Your task to perform on an android device: Empty the shopping cart on walmart.com. Search for energizer triple a on walmart.com, select the first entry, and add it to the cart. Image 0: 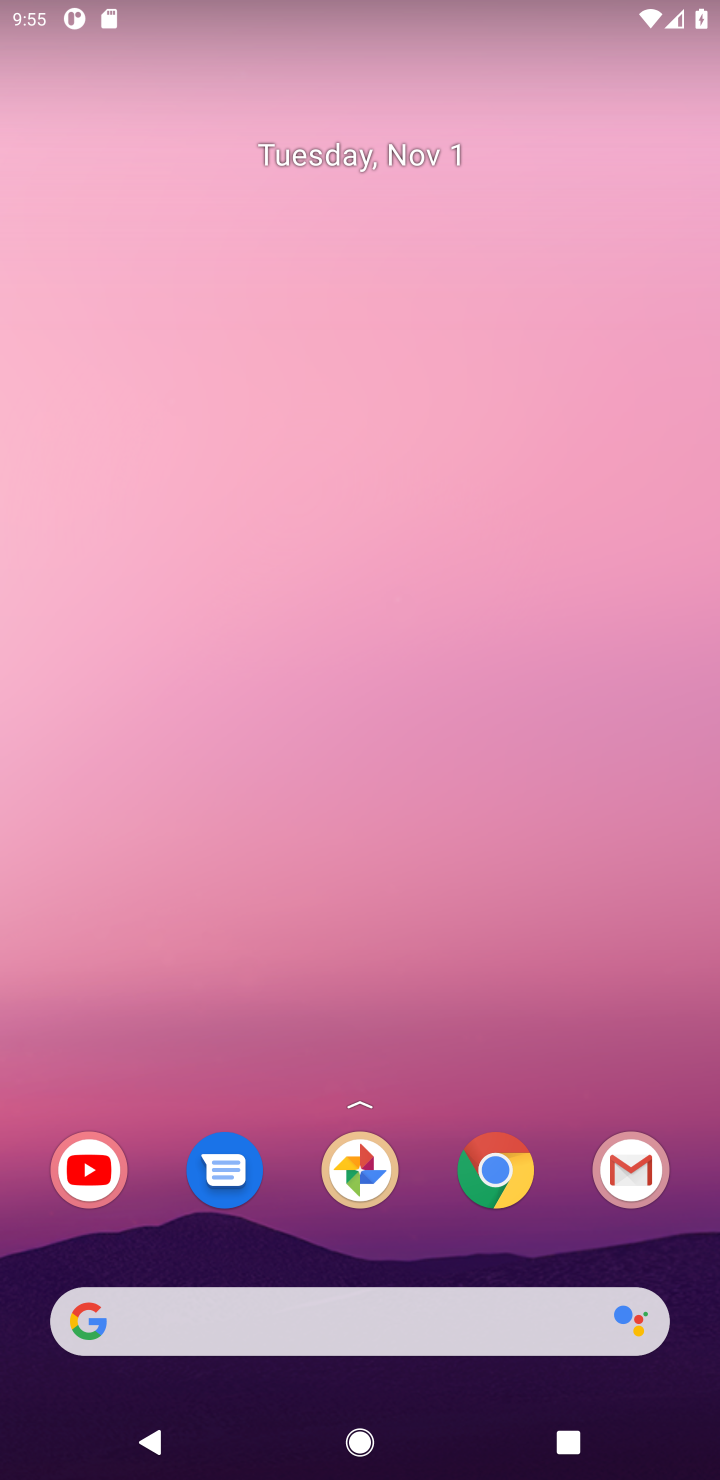
Step 0: click (511, 1193)
Your task to perform on an android device: Empty the shopping cart on walmart.com. Search for energizer triple a on walmart.com, select the first entry, and add it to the cart. Image 1: 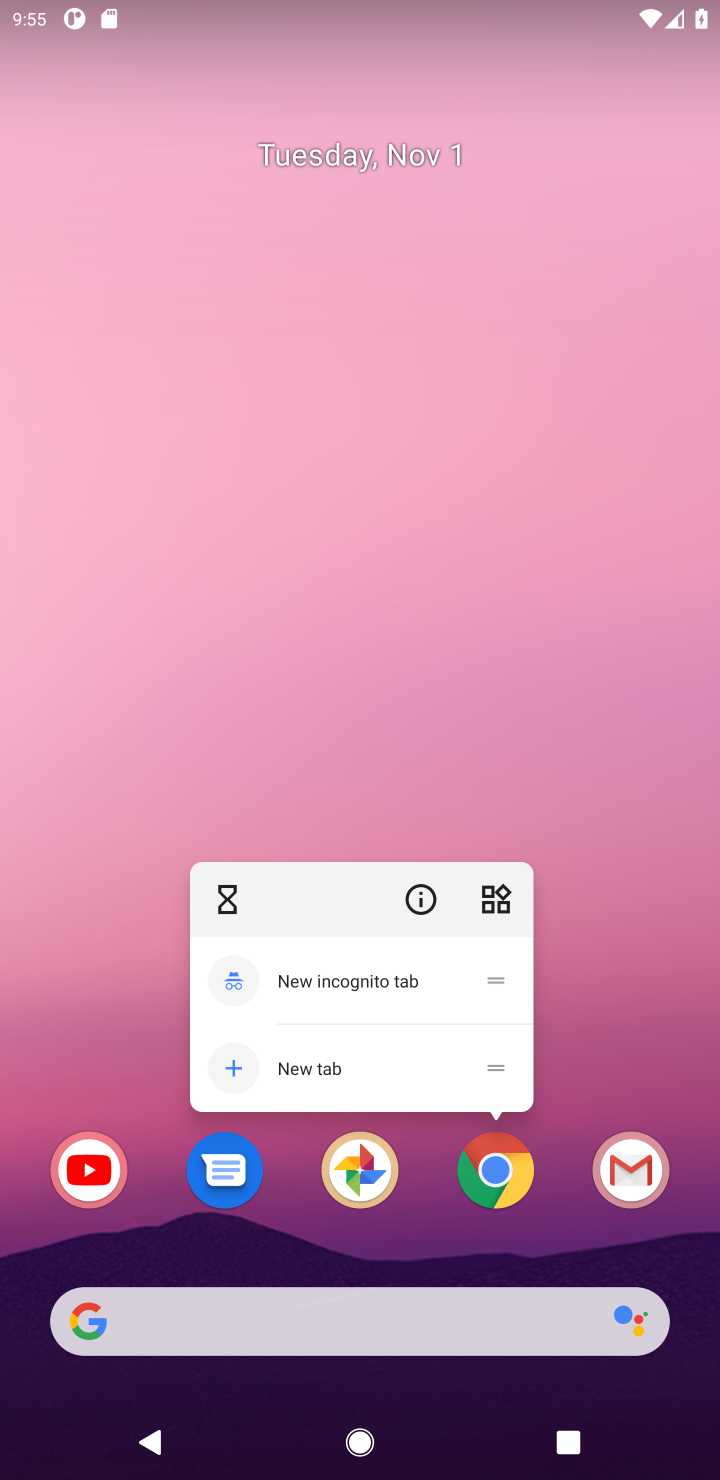
Step 1: click (513, 1187)
Your task to perform on an android device: Empty the shopping cart on walmart.com. Search for energizer triple a on walmart.com, select the first entry, and add it to the cart. Image 2: 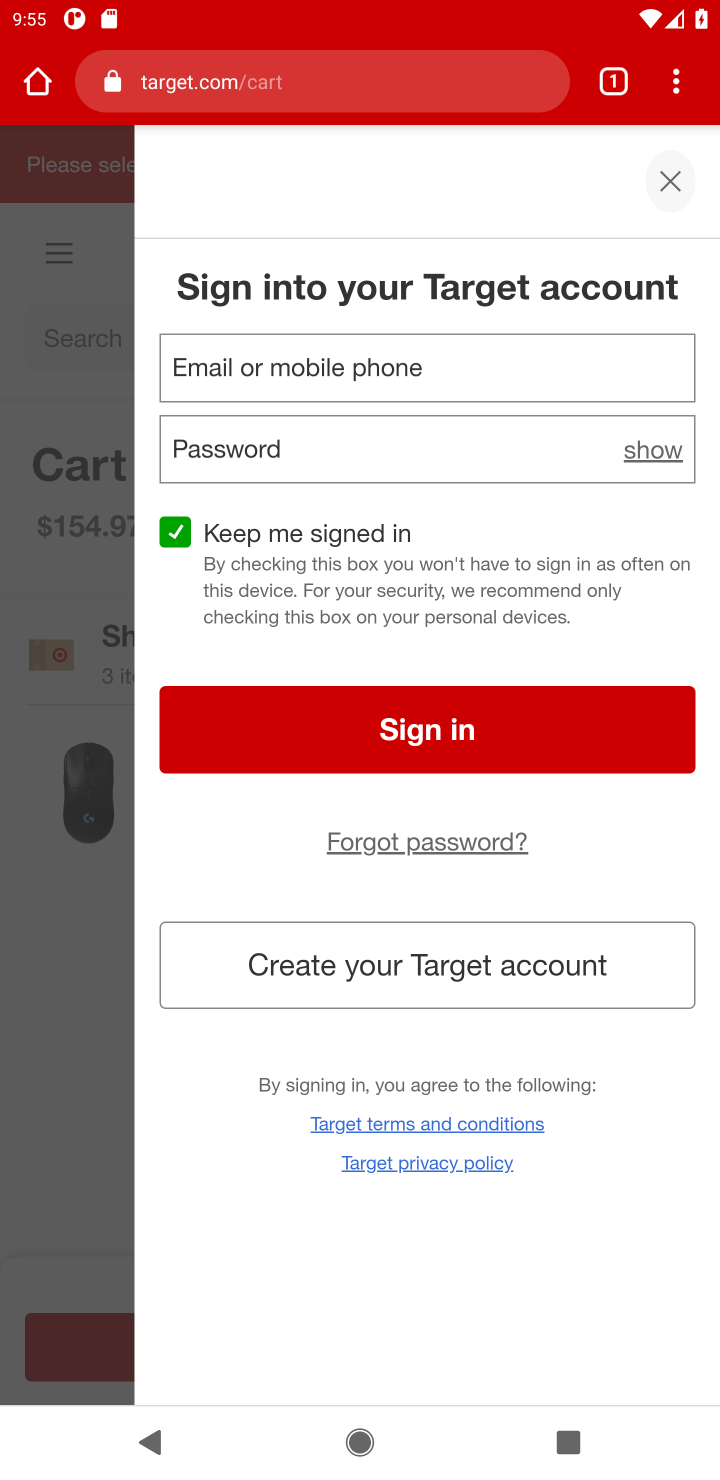
Step 2: click (224, 90)
Your task to perform on an android device: Empty the shopping cart on walmart.com. Search for energizer triple a on walmart.com, select the first entry, and add it to the cart. Image 3: 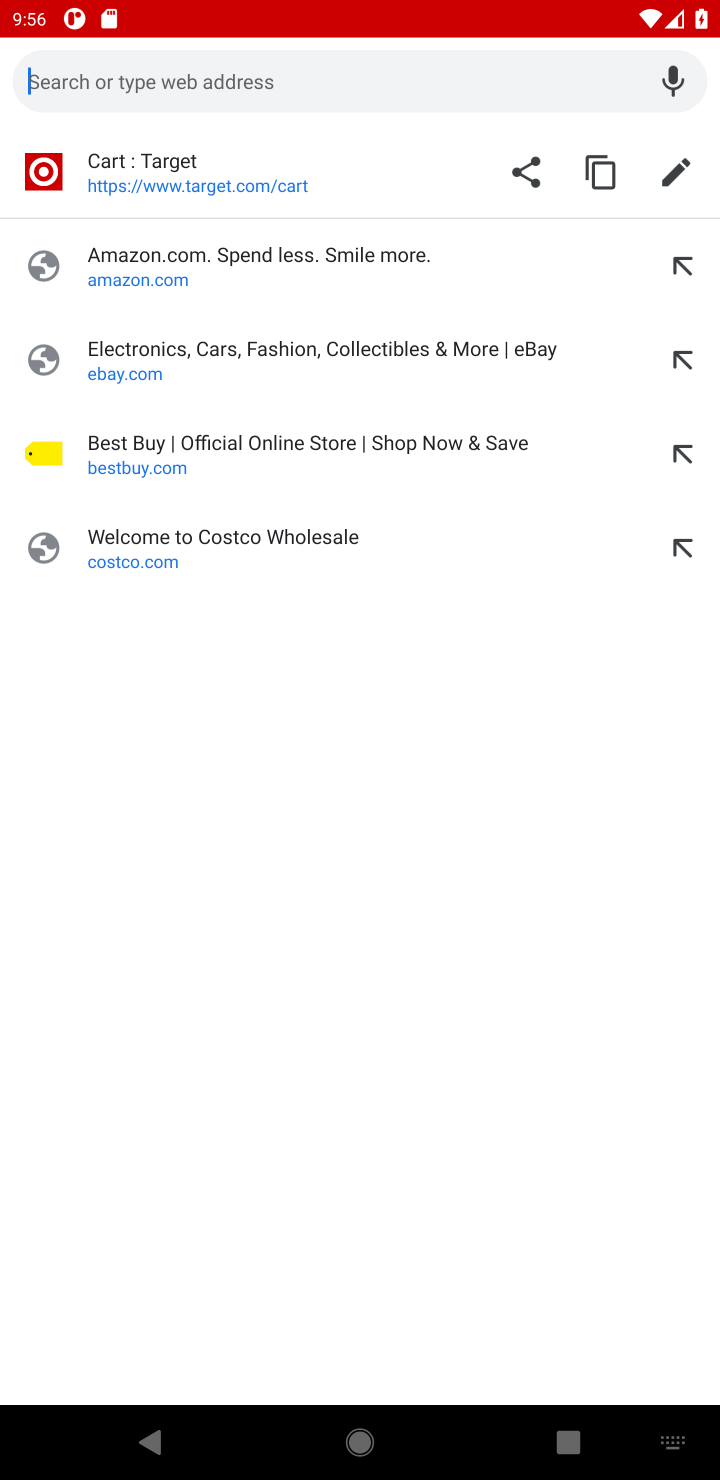
Step 3: type "walmart.com"
Your task to perform on an android device: Empty the shopping cart on walmart.com. Search for energizer triple a on walmart.com, select the first entry, and add it to the cart. Image 4: 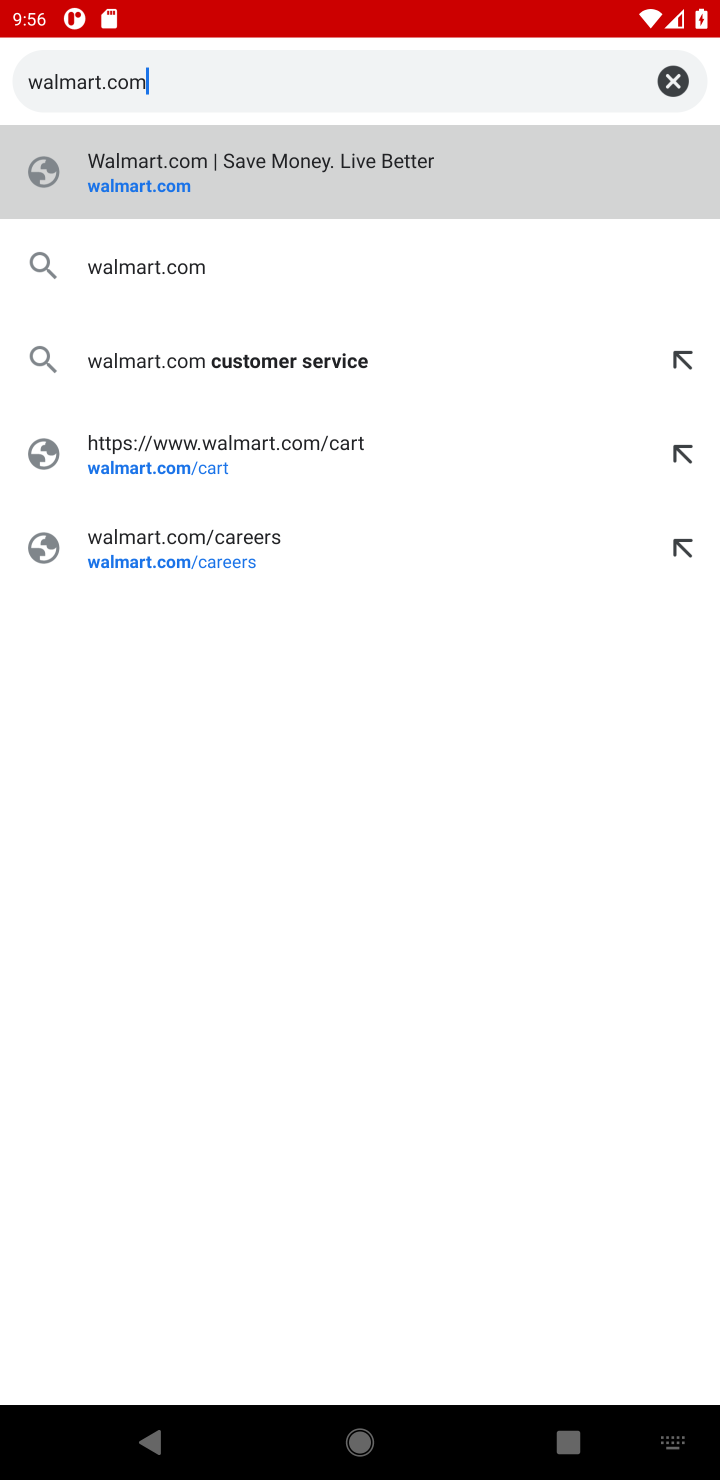
Step 4: press enter
Your task to perform on an android device: Empty the shopping cart on walmart.com. Search for energizer triple a on walmart.com, select the first entry, and add it to the cart. Image 5: 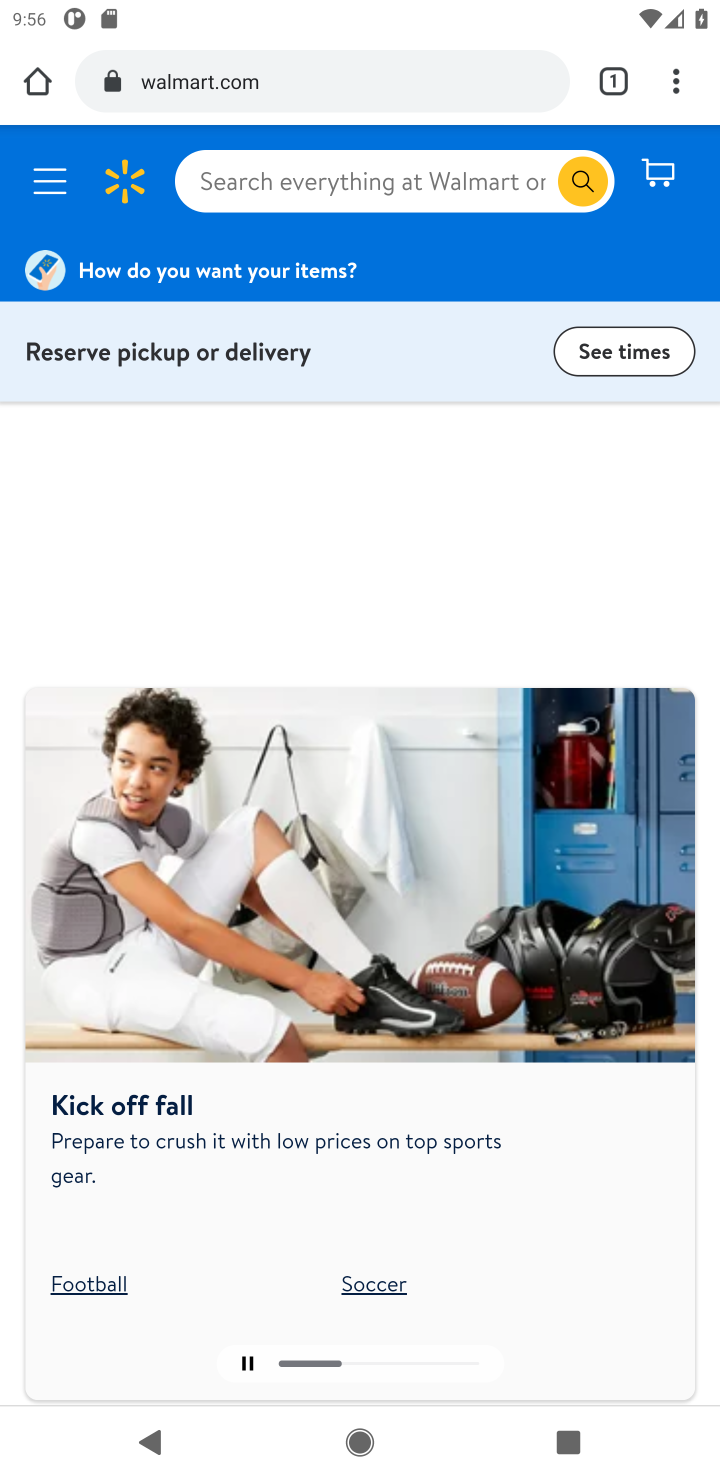
Step 5: click (660, 170)
Your task to perform on an android device: Empty the shopping cart on walmart.com. Search for energizer triple a on walmart.com, select the first entry, and add it to the cart. Image 6: 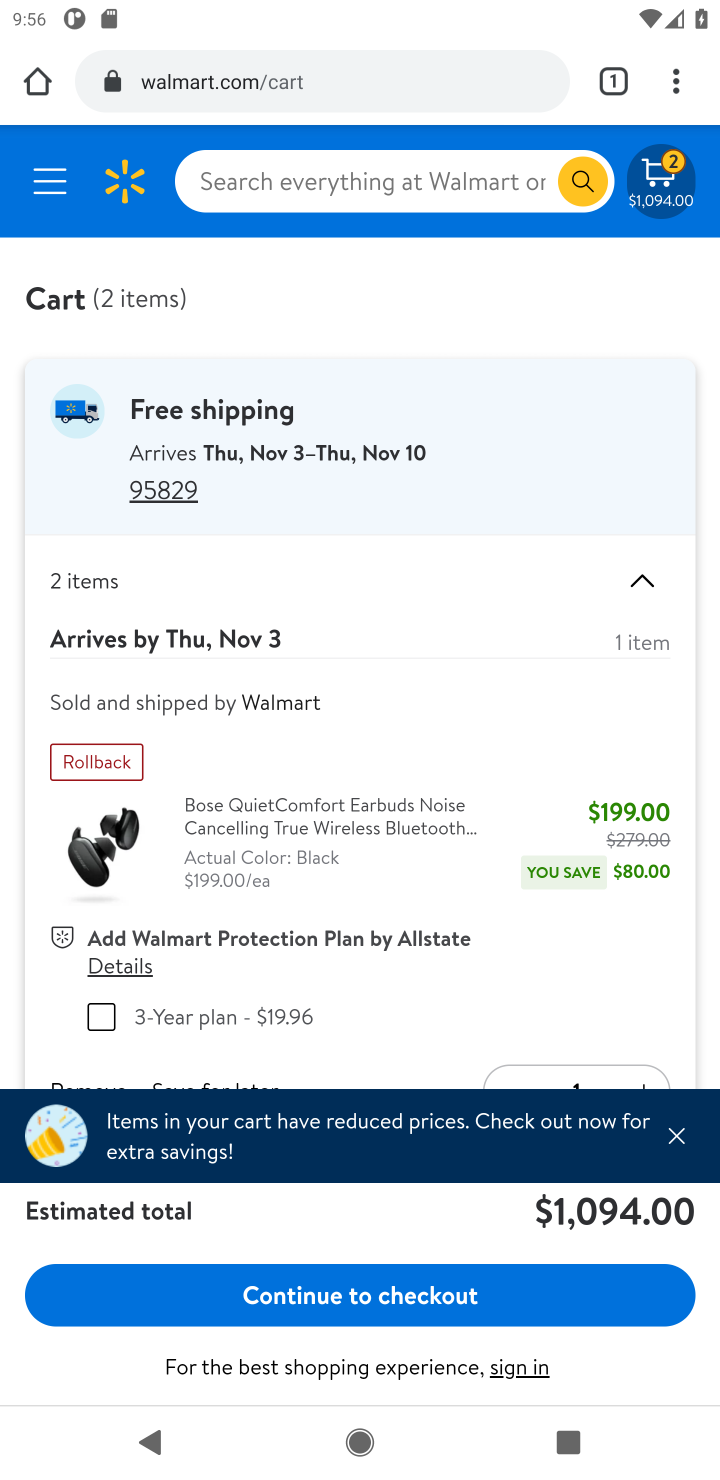
Step 6: drag from (499, 949) to (469, 600)
Your task to perform on an android device: Empty the shopping cart on walmart.com. Search for energizer triple a on walmart.com, select the first entry, and add it to the cart. Image 7: 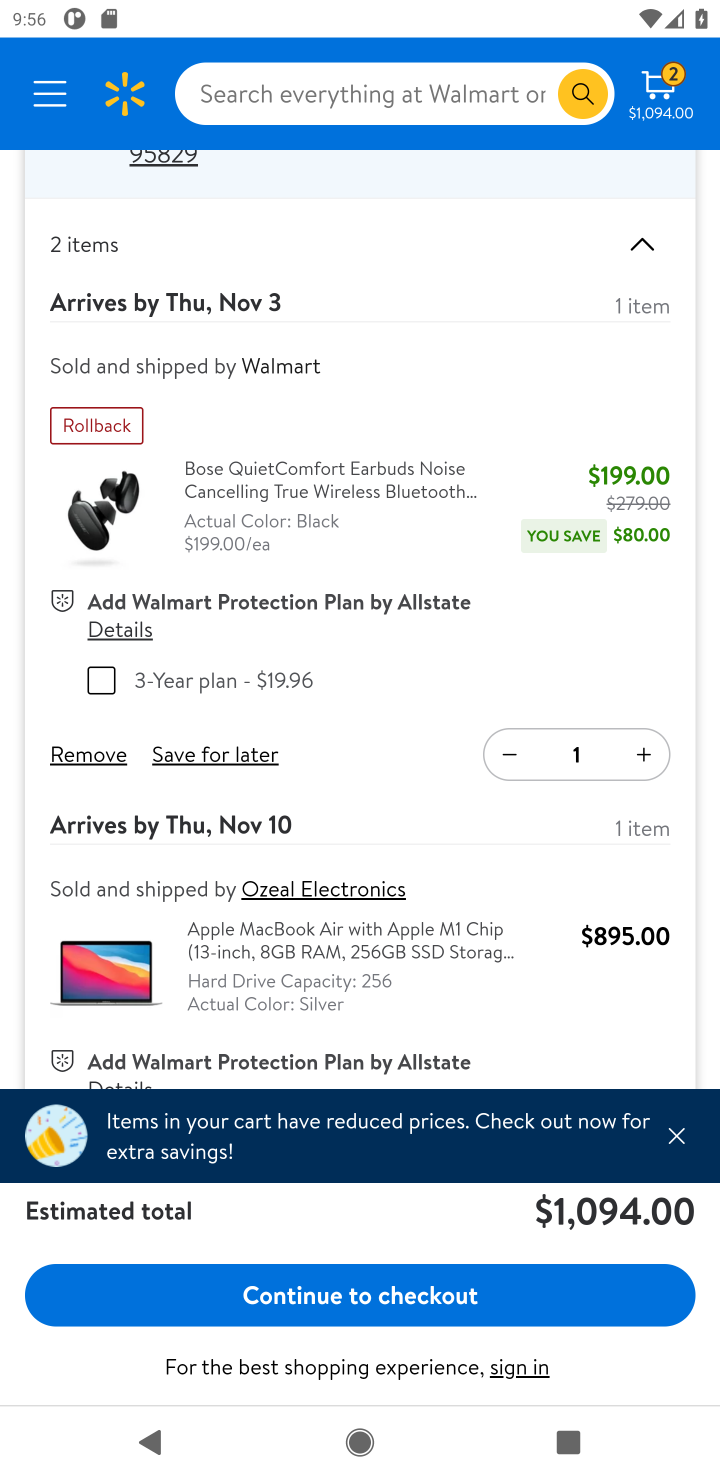
Step 7: click (100, 754)
Your task to perform on an android device: Empty the shopping cart on walmart.com. Search for energizer triple a on walmart.com, select the first entry, and add it to the cart. Image 8: 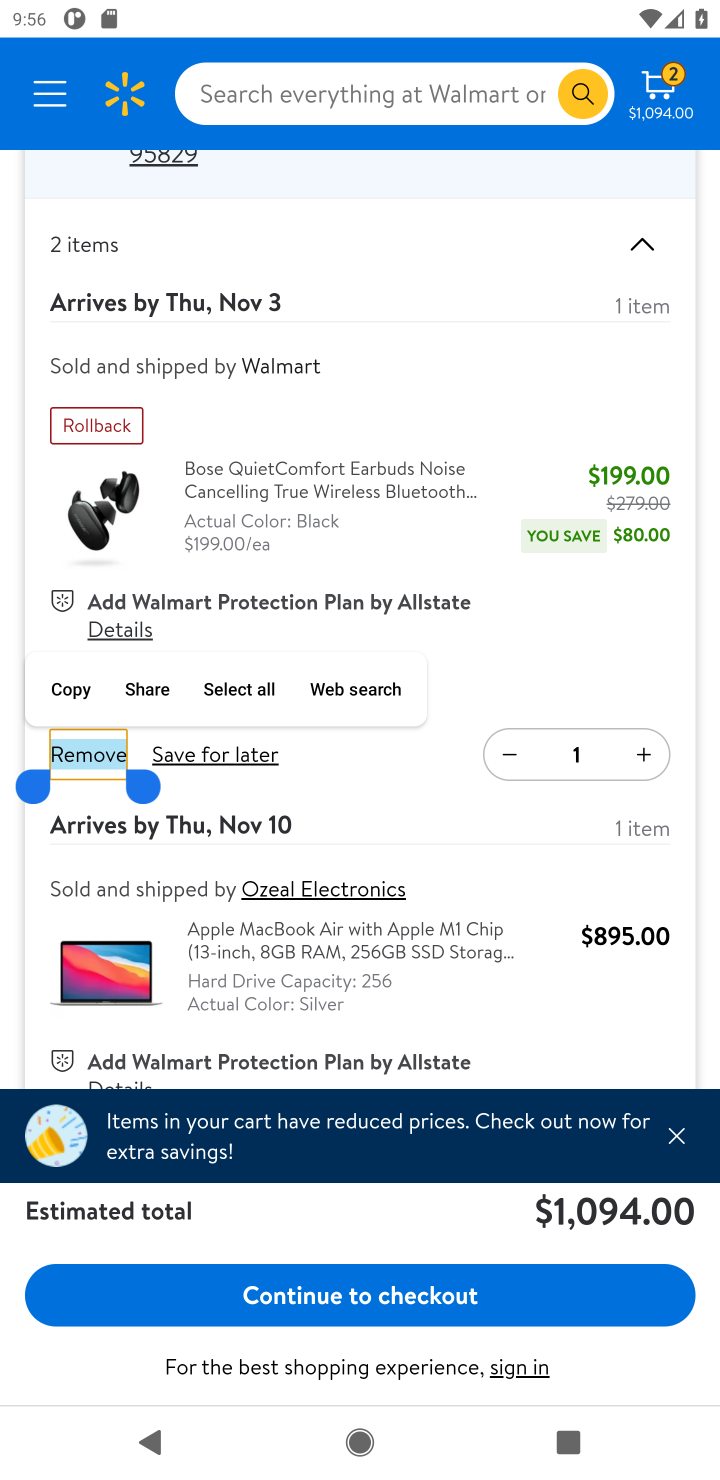
Step 8: click (94, 767)
Your task to perform on an android device: Empty the shopping cart on walmart.com. Search for energizer triple a on walmart.com, select the first entry, and add it to the cart. Image 9: 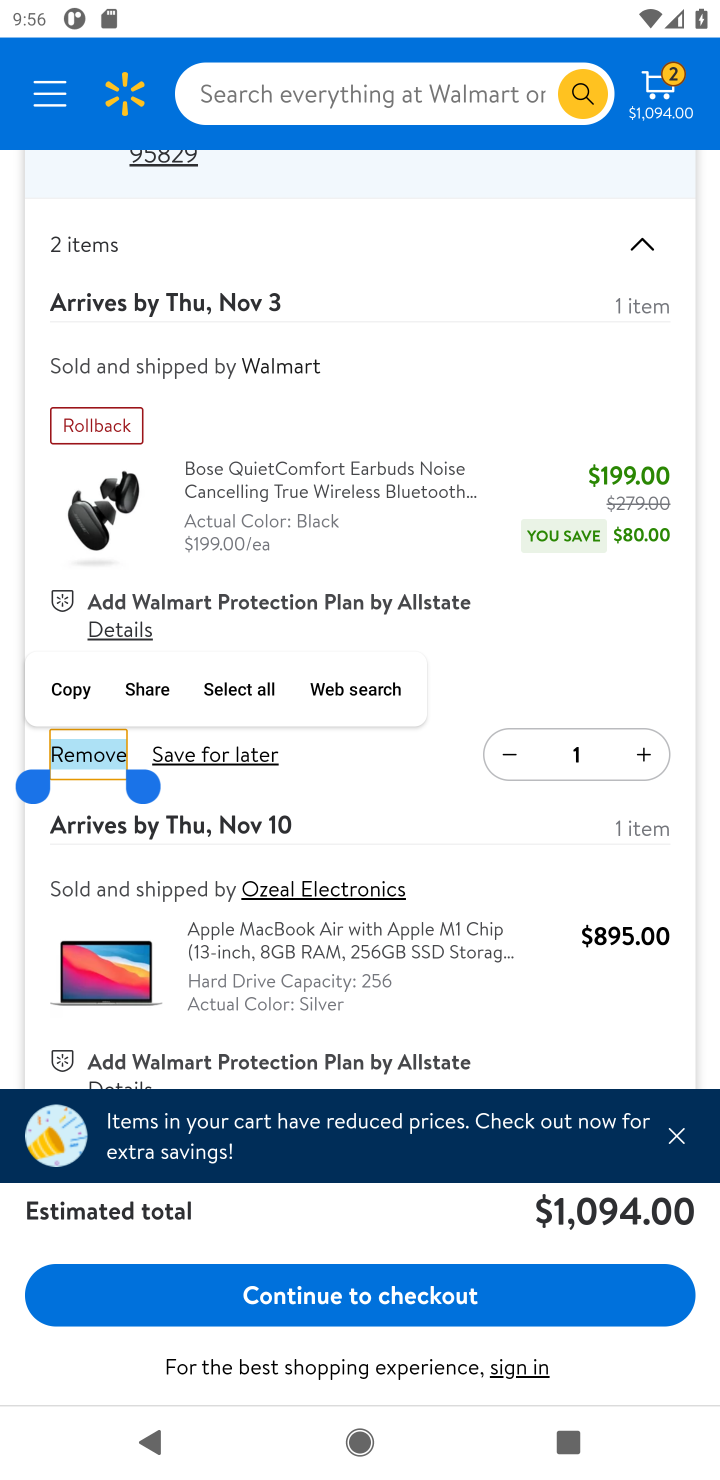
Step 9: click (58, 759)
Your task to perform on an android device: Empty the shopping cart on walmart.com. Search for energizer triple a on walmart.com, select the first entry, and add it to the cart. Image 10: 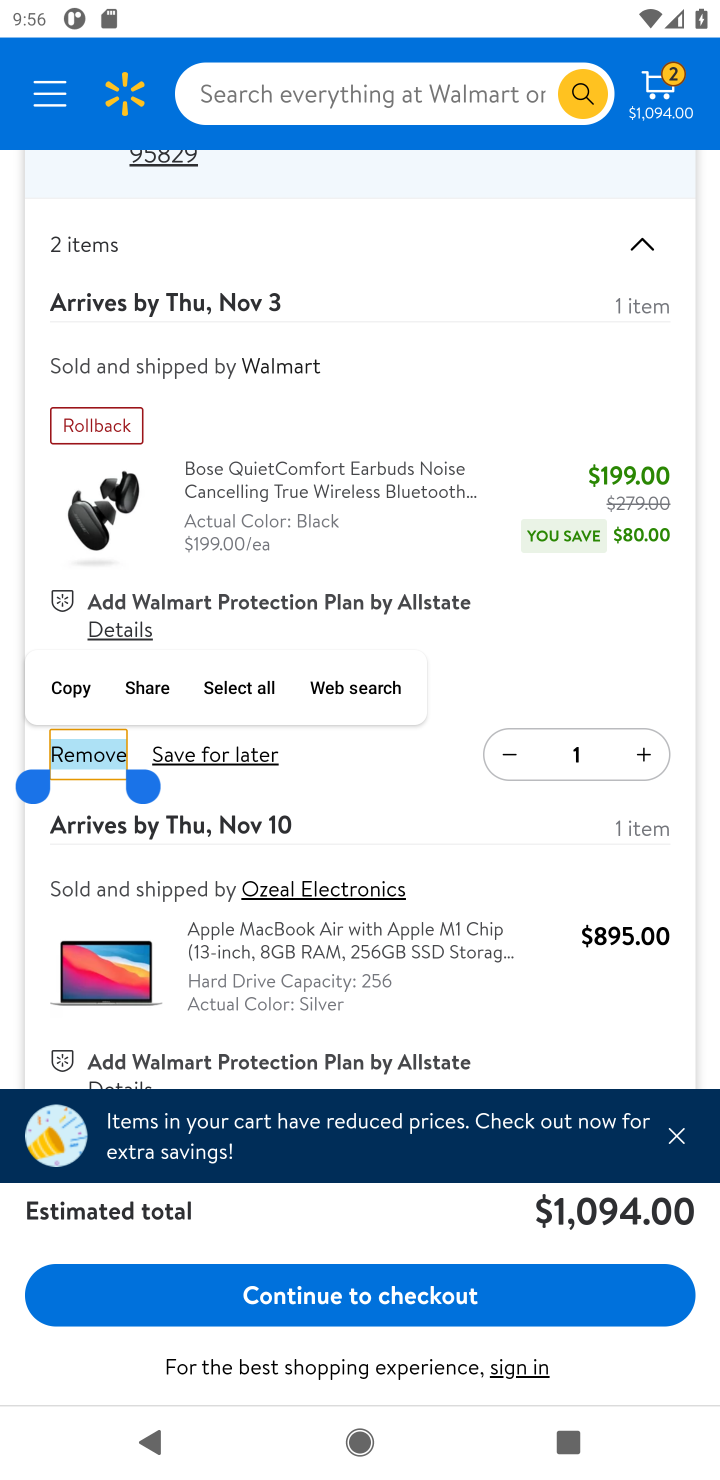
Step 10: click (182, 794)
Your task to perform on an android device: Empty the shopping cart on walmart.com. Search for energizer triple a on walmart.com, select the first entry, and add it to the cart. Image 11: 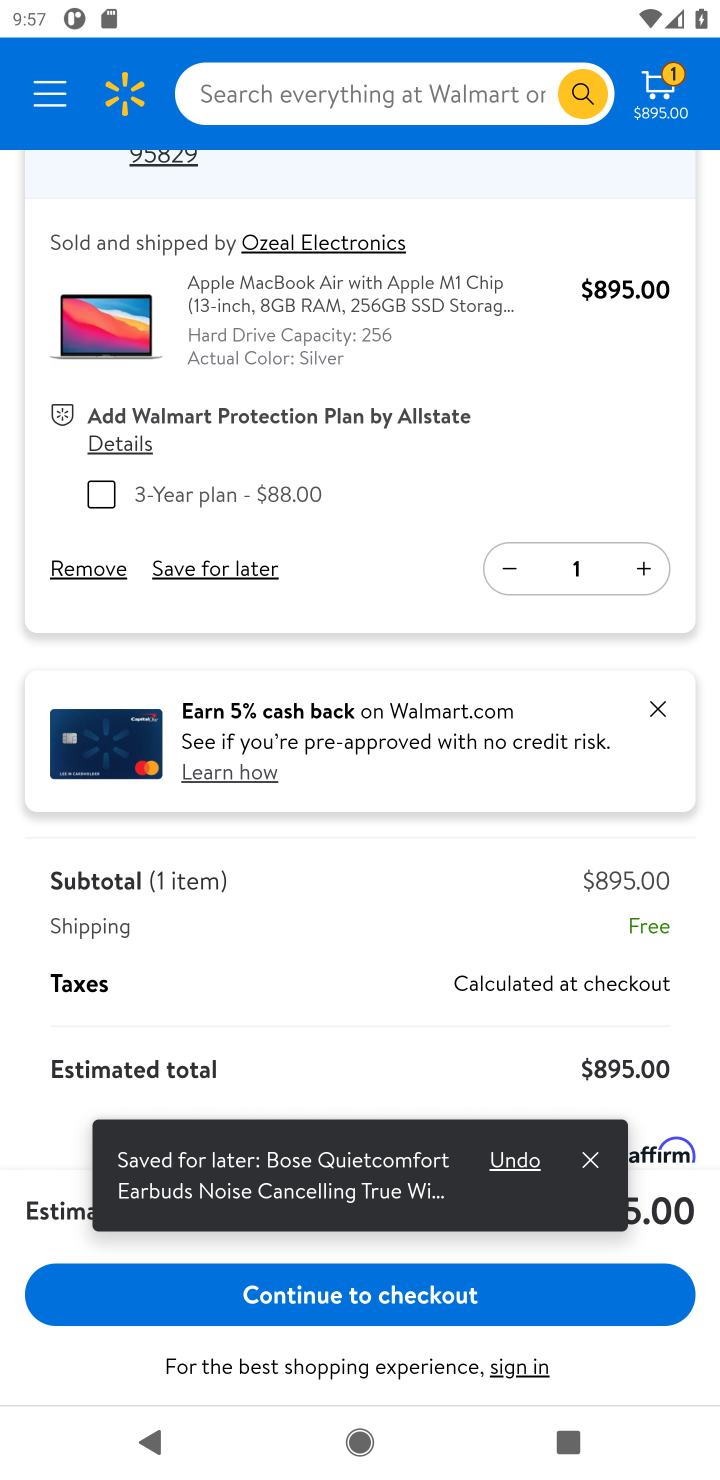
Step 11: click (83, 625)
Your task to perform on an android device: Empty the shopping cart on walmart.com. Search for energizer triple a on walmart.com, select the first entry, and add it to the cart. Image 12: 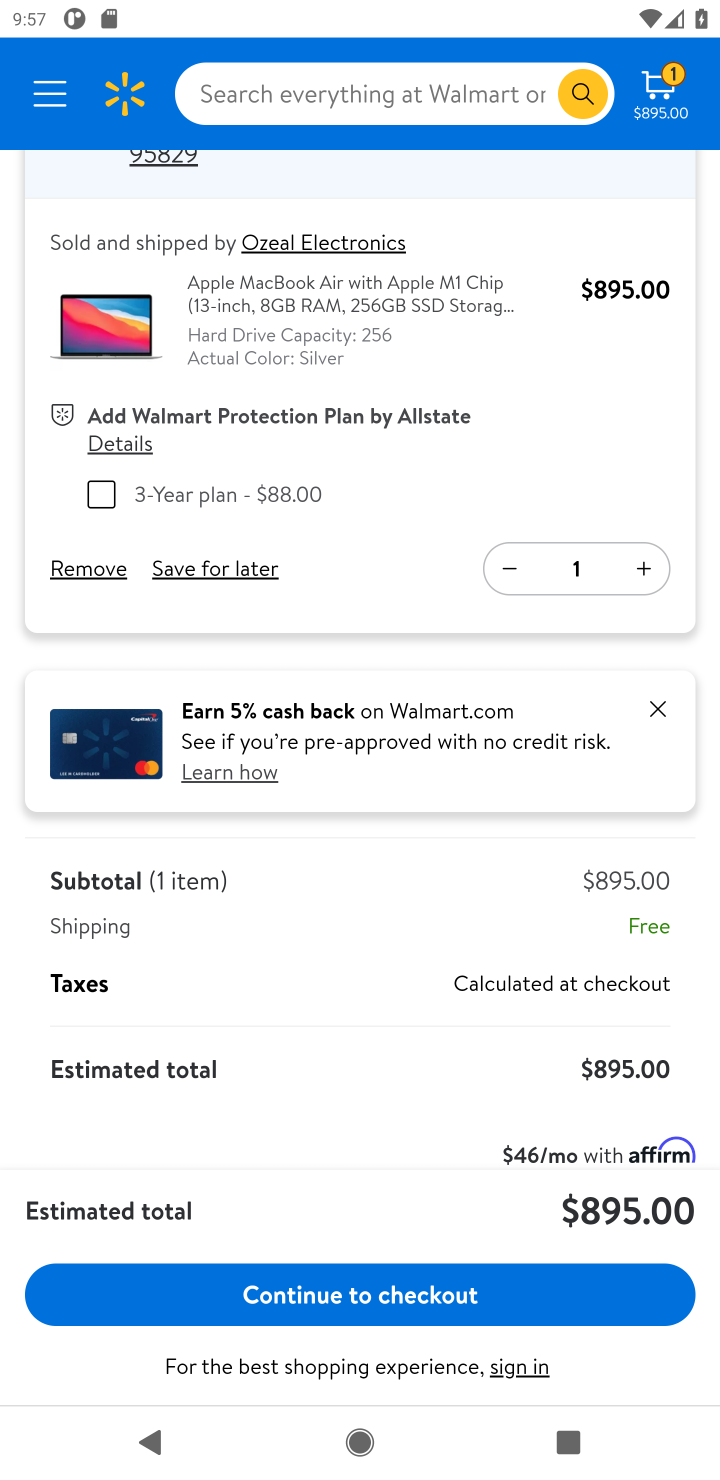
Step 12: click (95, 564)
Your task to perform on an android device: Empty the shopping cart on walmart.com. Search for energizer triple a on walmart.com, select the first entry, and add it to the cart. Image 13: 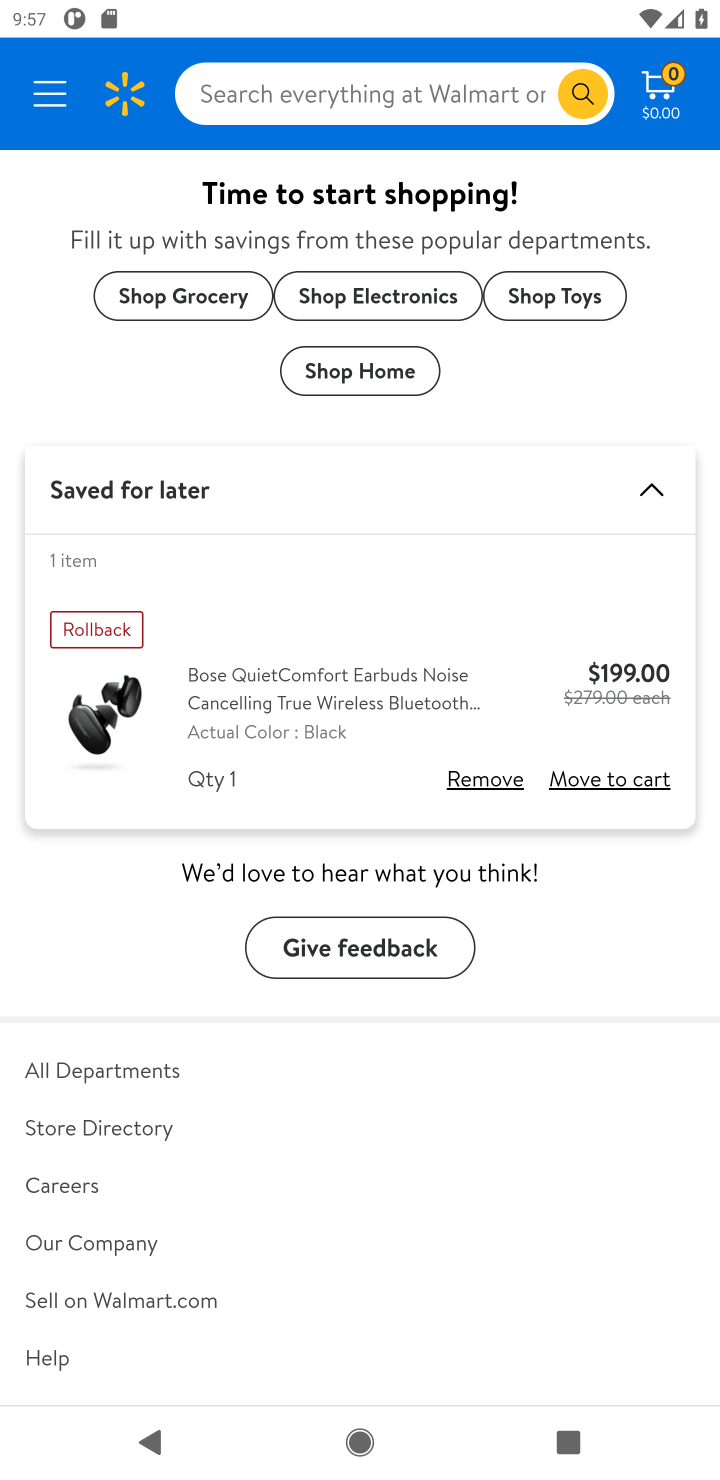
Step 13: drag from (360, 566) to (429, 949)
Your task to perform on an android device: Empty the shopping cart on walmart.com. Search for energizer triple a on walmart.com, select the first entry, and add it to the cart. Image 14: 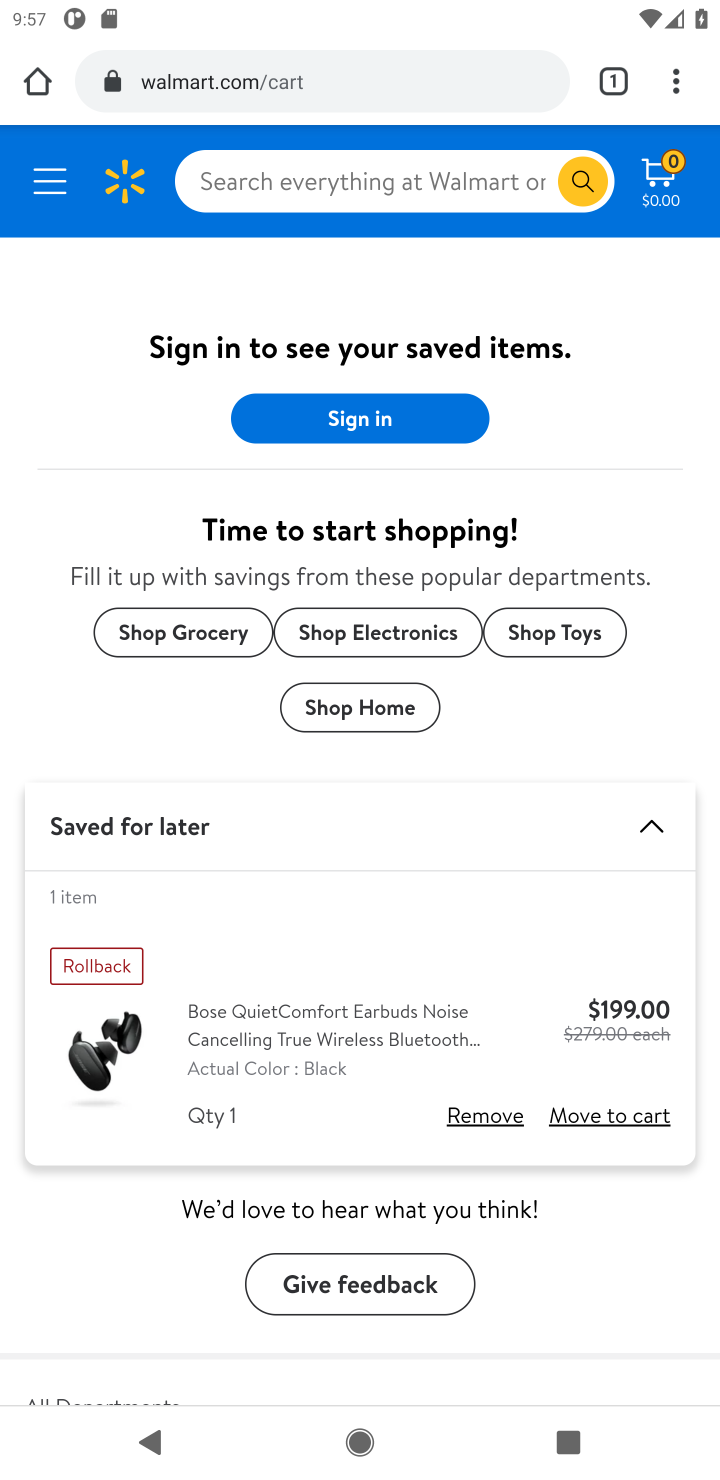
Step 14: click (489, 1123)
Your task to perform on an android device: Empty the shopping cart on walmart.com. Search for energizer triple a on walmart.com, select the first entry, and add it to the cart. Image 15: 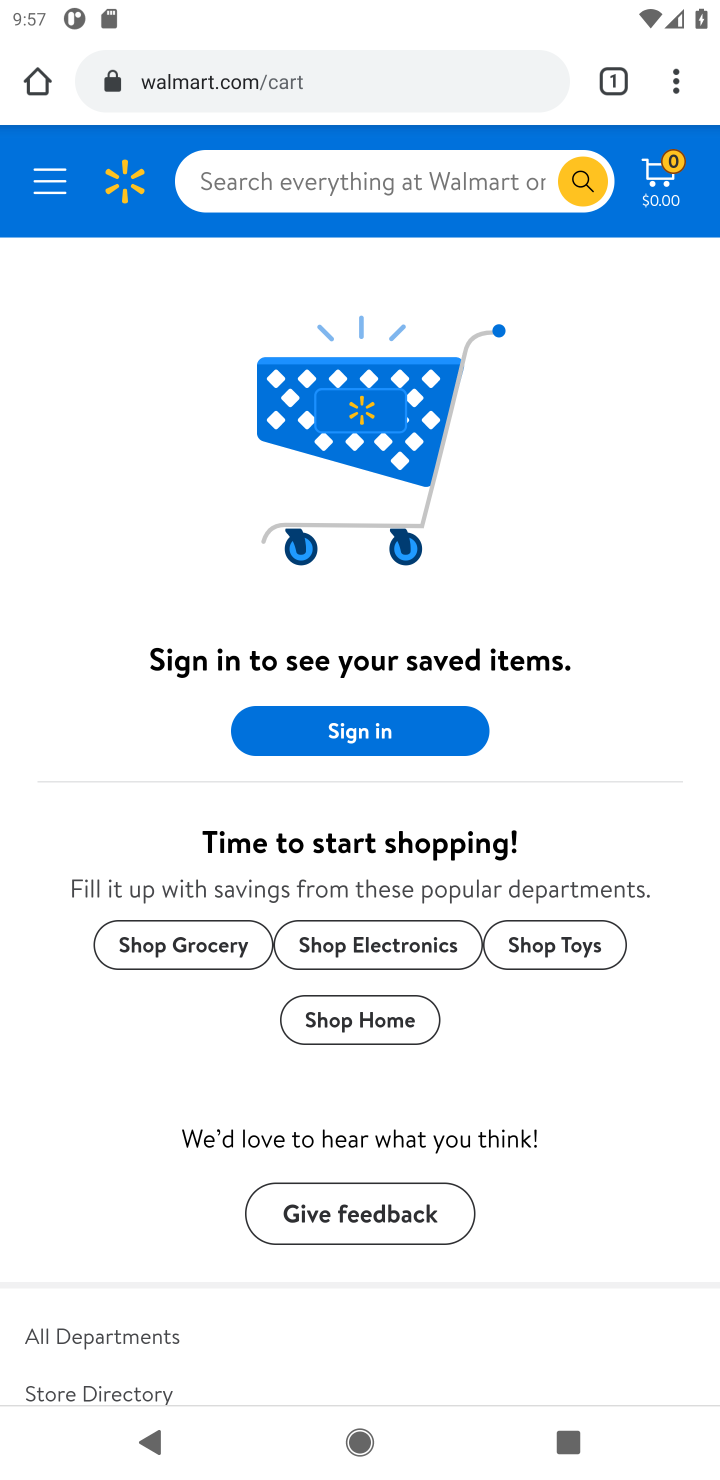
Step 15: click (388, 191)
Your task to perform on an android device: Empty the shopping cart on walmart.com. Search for energizer triple a on walmart.com, select the first entry, and add it to the cart. Image 16: 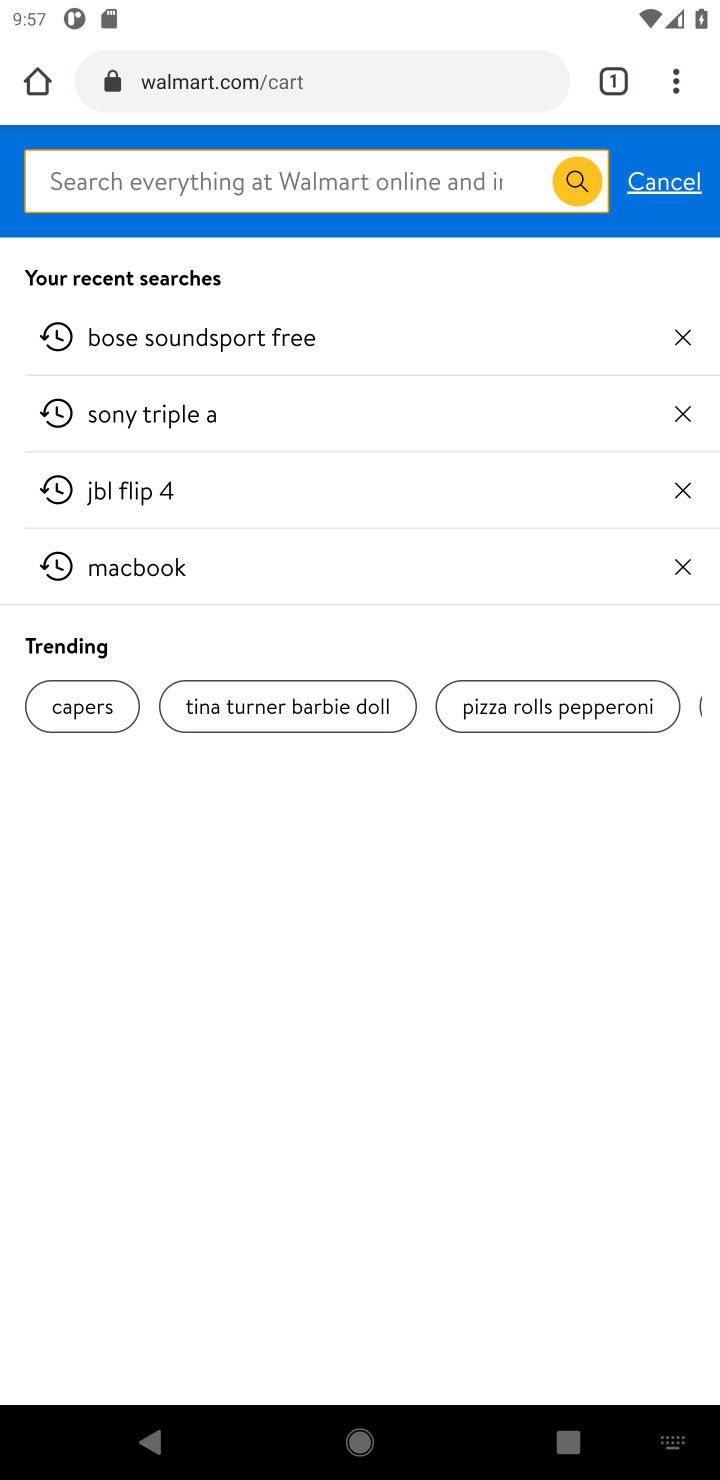
Step 16: type "energizer triple a"
Your task to perform on an android device: Empty the shopping cart on walmart.com. Search for energizer triple a on walmart.com, select the first entry, and add it to the cart. Image 17: 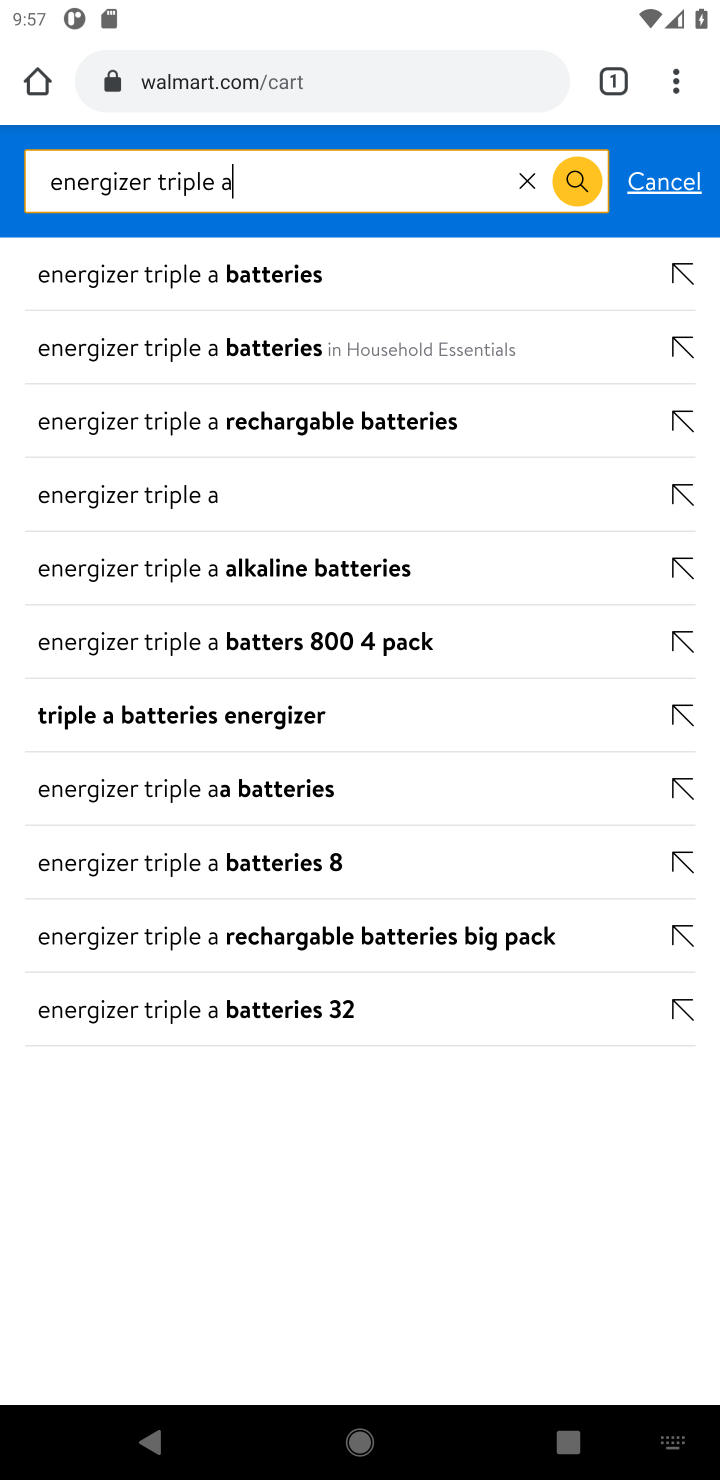
Step 17: press enter
Your task to perform on an android device: Empty the shopping cart on walmart.com. Search for energizer triple a on walmart.com, select the first entry, and add it to the cart. Image 18: 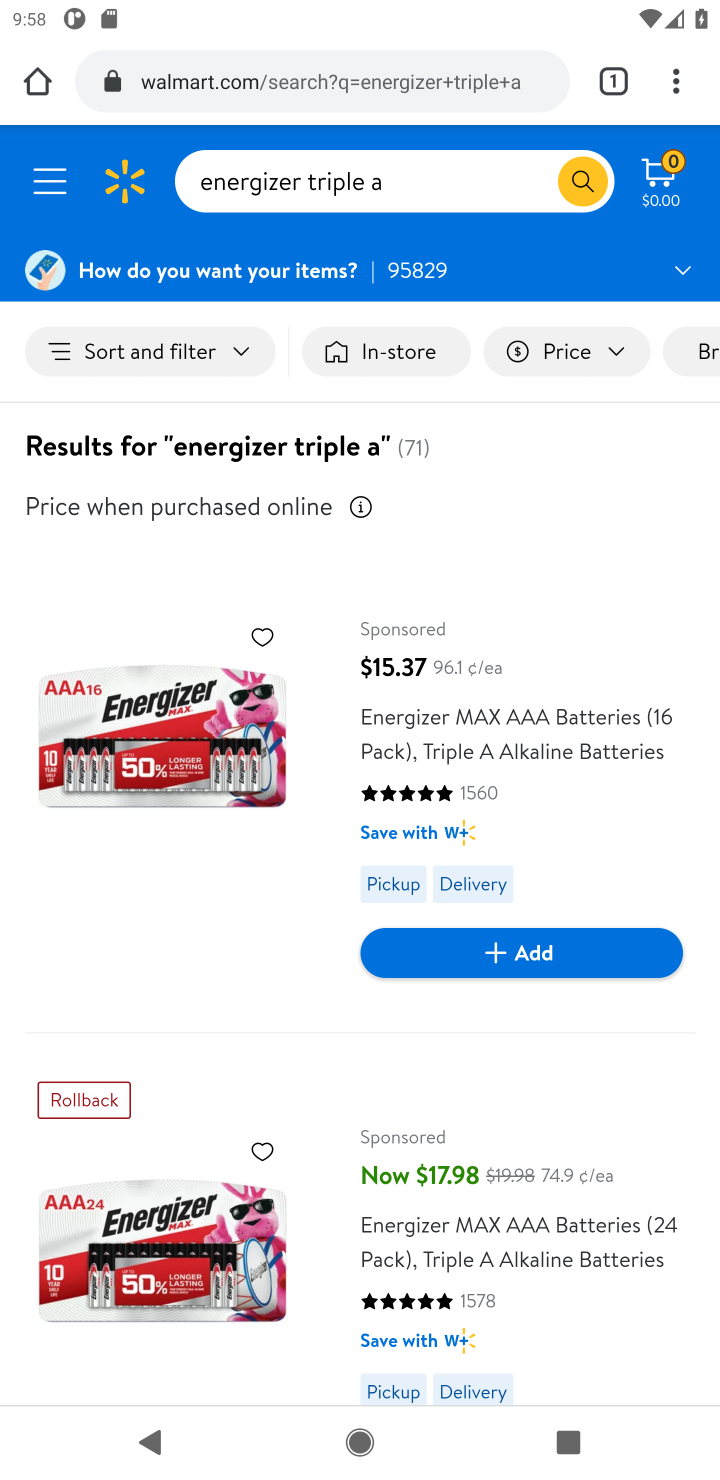
Step 18: click (541, 744)
Your task to perform on an android device: Empty the shopping cart on walmart.com. Search for energizer triple a on walmart.com, select the first entry, and add it to the cart. Image 19: 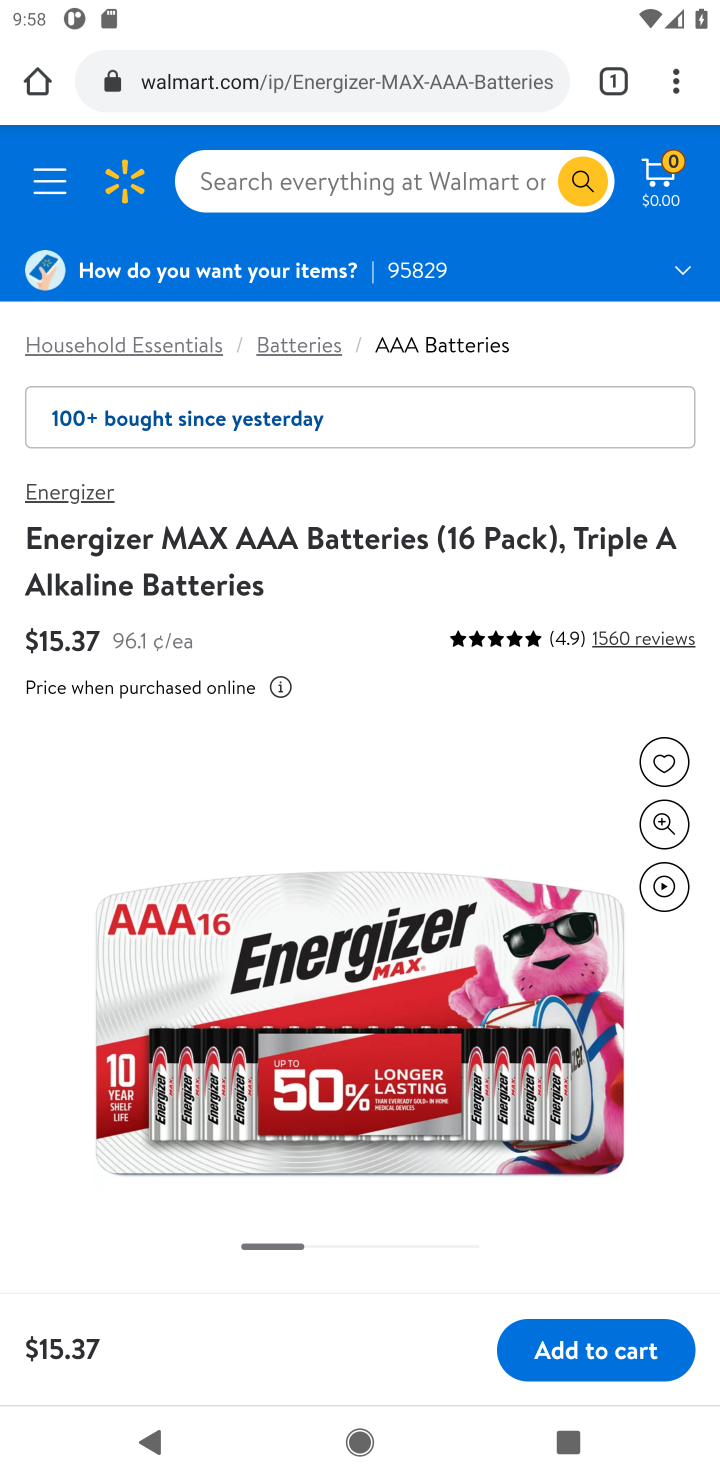
Step 19: click (573, 1356)
Your task to perform on an android device: Empty the shopping cart on walmart.com. Search for energizer triple a on walmart.com, select the first entry, and add it to the cart. Image 20: 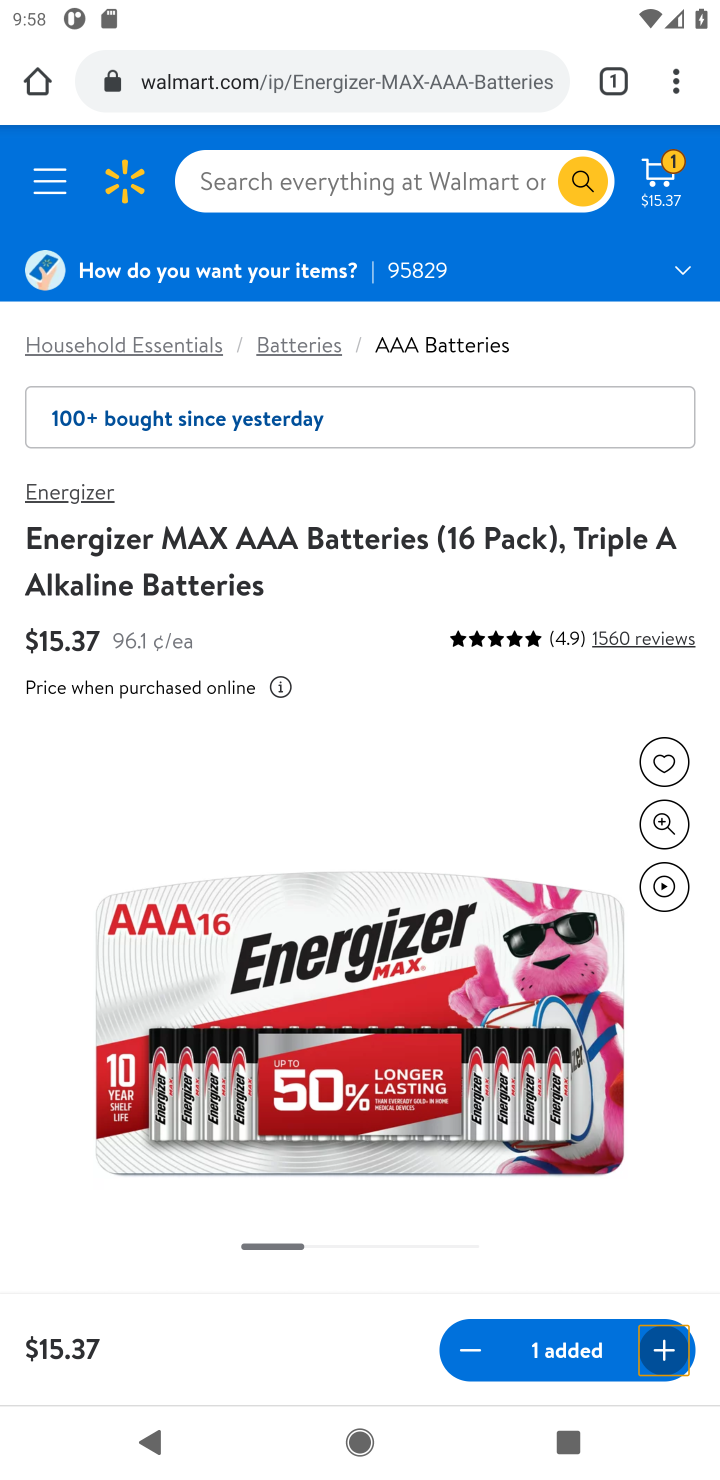
Step 20: drag from (236, 1179) to (245, 1039)
Your task to perform on an android device: Empty the shopping cart on walmart.com. Search for energizer triple a on walmart.com, select the first entry, and add it to the cart. Image 21: 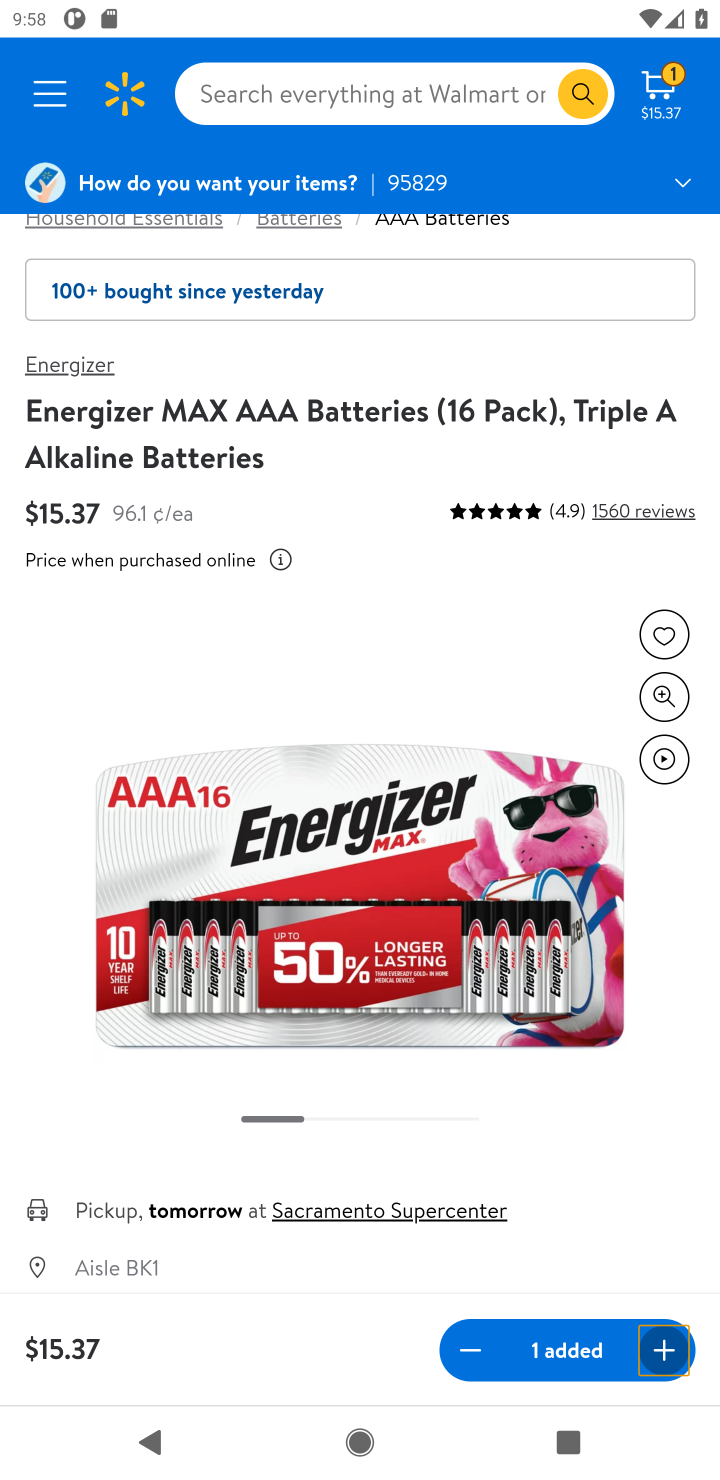
Step 21: click (662, 96)
Your task to perform on an android device: Empty the shopping cart on walmart.com. Search for energizer triple a on walmart.com, select the first entry, and add it to the cart. Image 22: 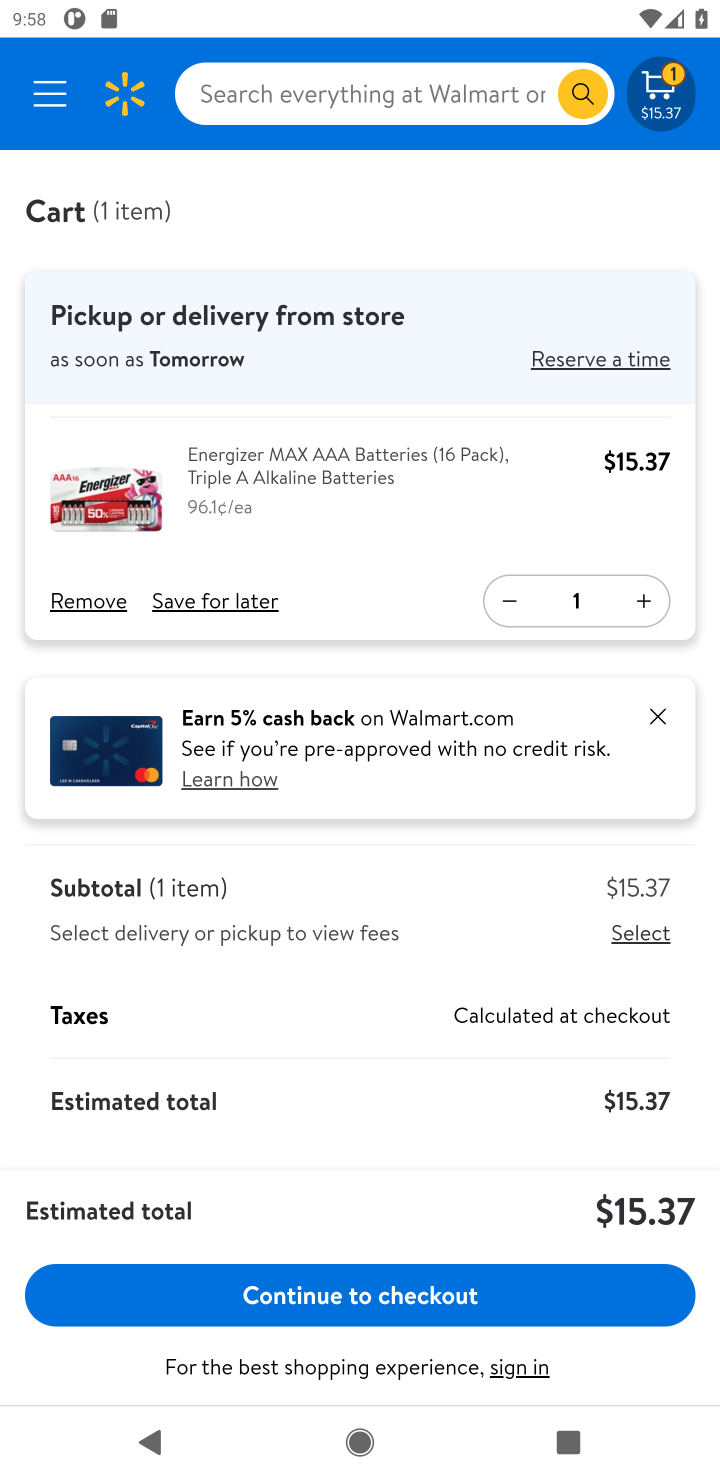
Step 22: click (513, 1300)
Your task to perform on an android device: Empty the shopping cart on walmart.com. Search for energizer triple a on walmart.com, select the first entry, and add it to the cart. Image 23: 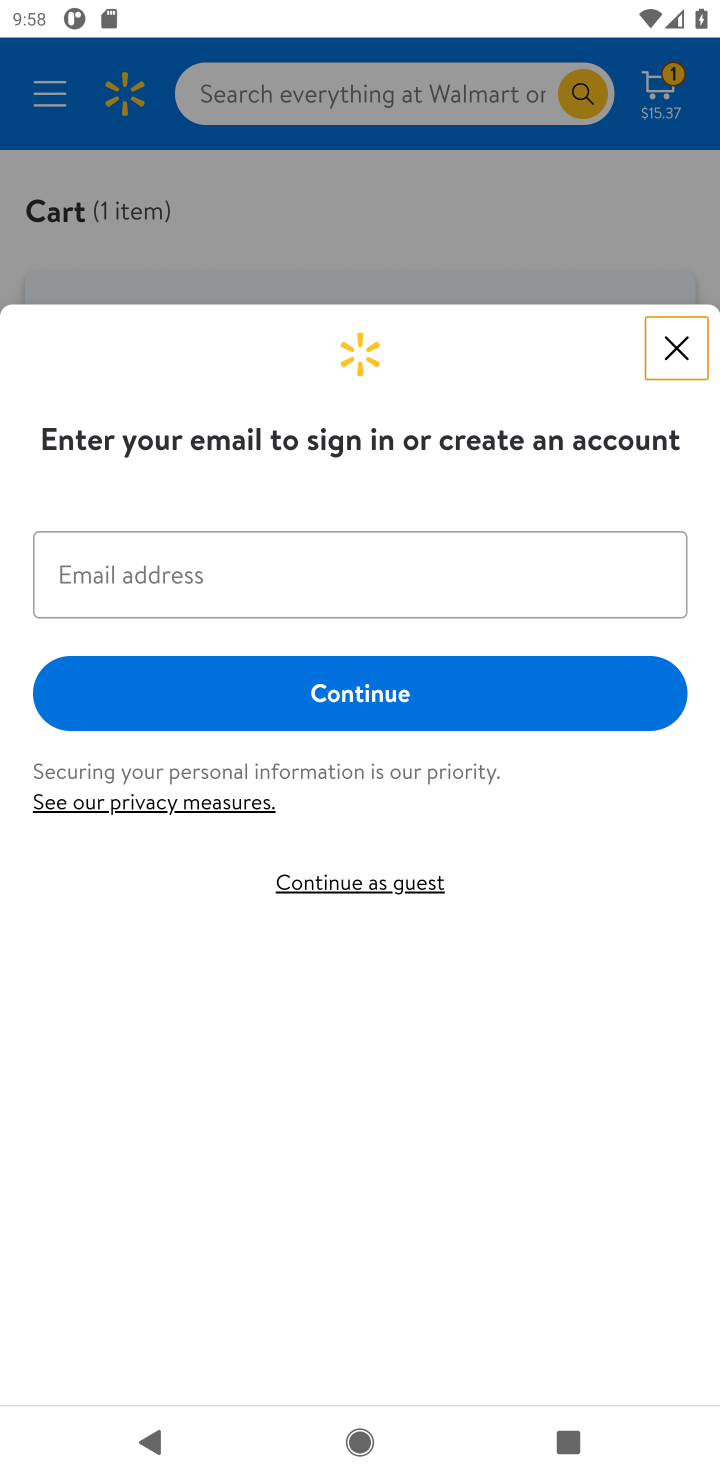
Step 23: click (660, 348)
Your task to perform on an android device: Empty the shopping cart on walmart.com. Search for energizer triple a on walmart.com, select the first entry, and add it to the cart. Image 24: 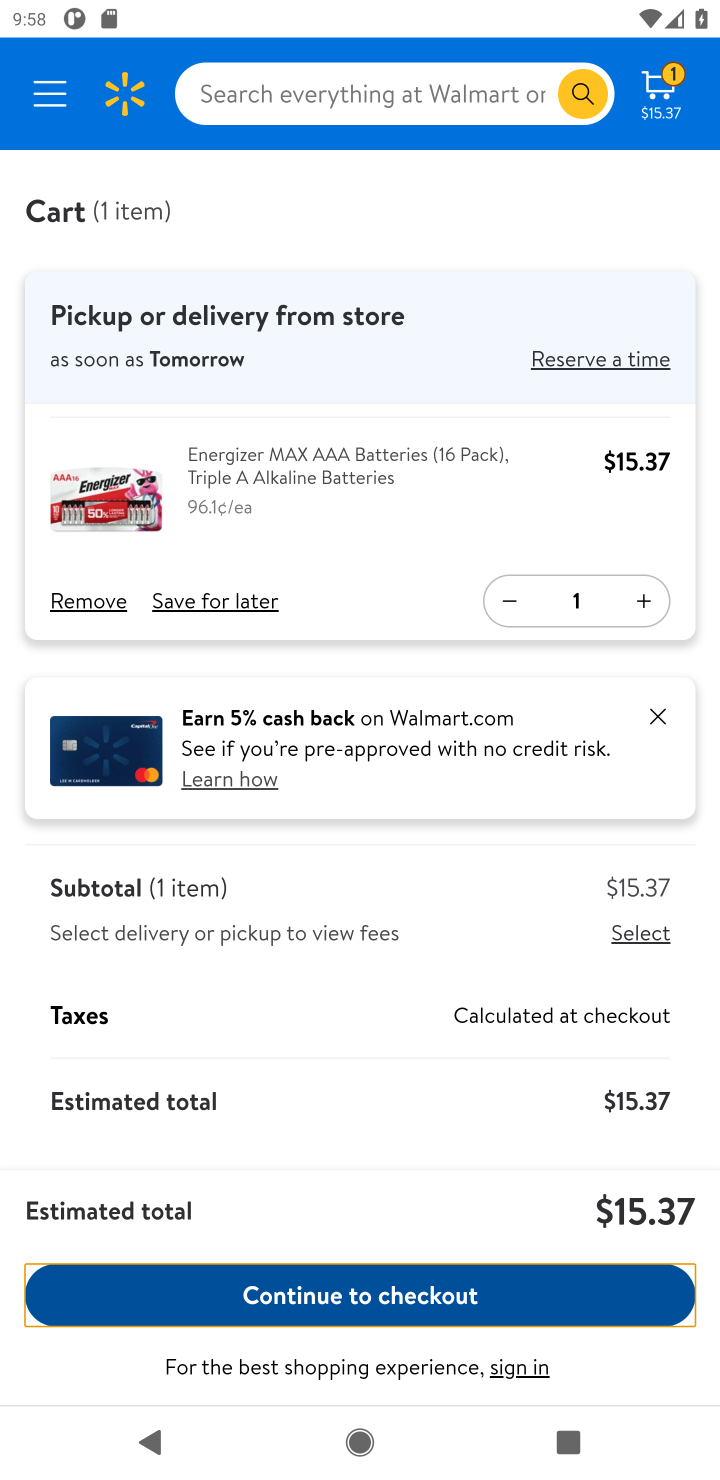
Step 24: task complete